Your task to perform on an android device: Set an alarm for 7pm Image 0: 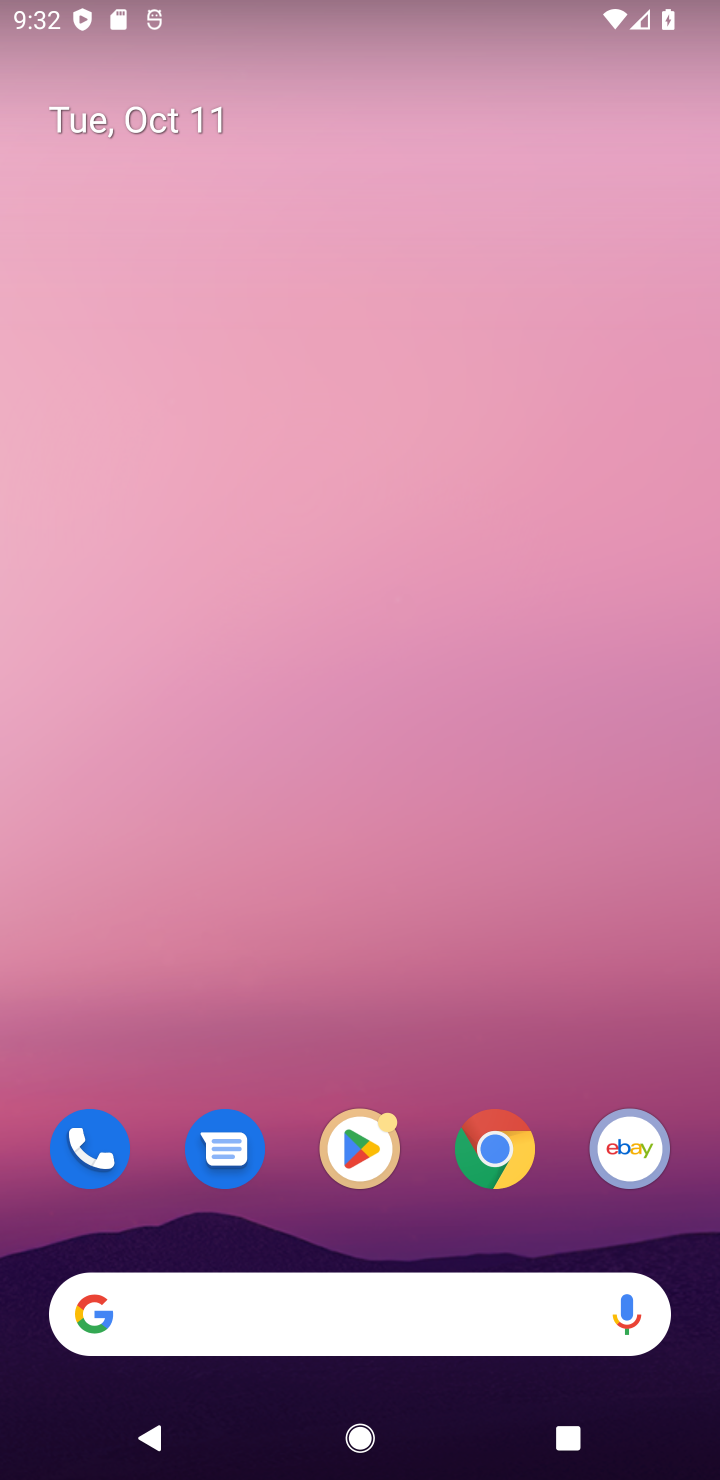
Step 0: drag from (316, 1087) to (301, 198)
Your task to perform on an android device: Set an alarm for 7pm Image 1: 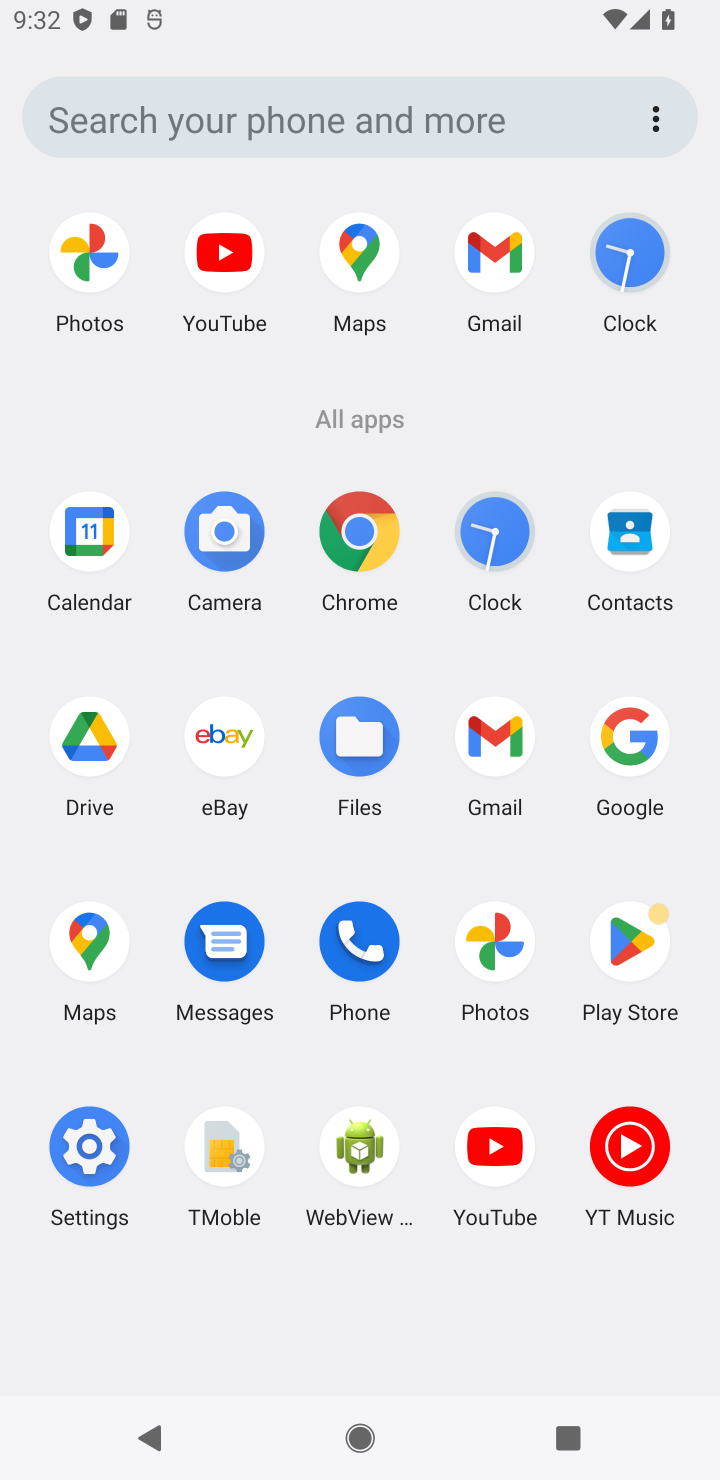
Step 1: click (491, 561)
Your task to perform on an android device: Set an alarm for 7pm Image 2: 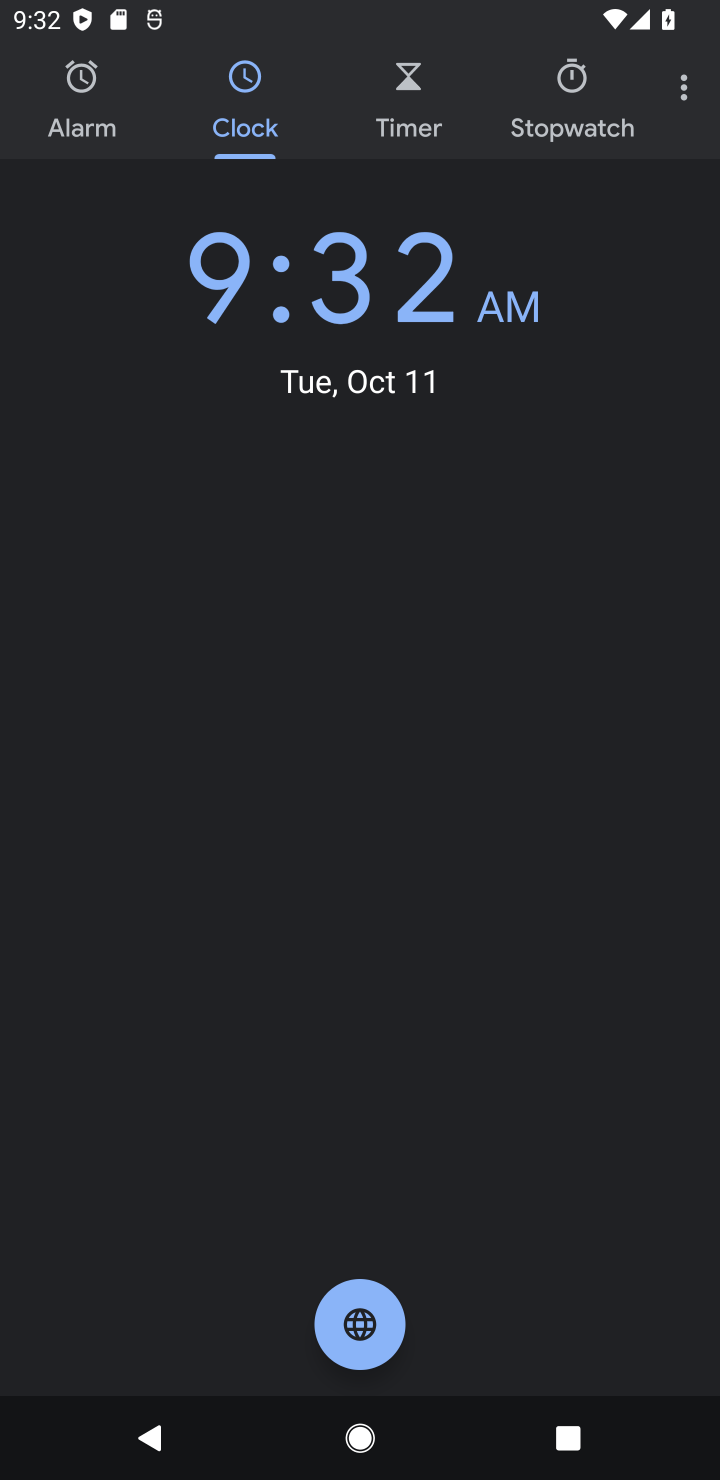
Step 2: click (89, 117)
Your task to perform on an android device: Set an alarm for 7pm Image 3: 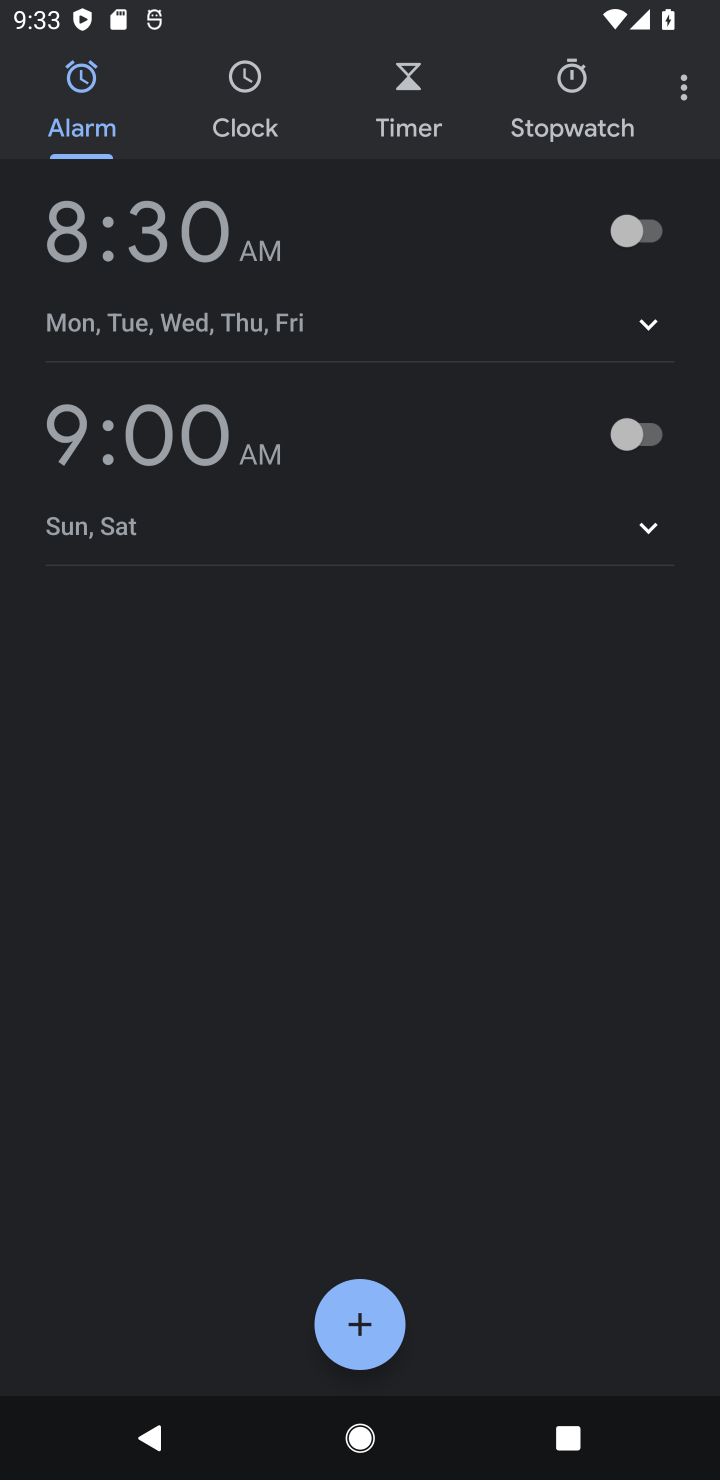
Step 3: click (361, 1355)
Your task to perform on an android device: Set an alarm for 7pm Image 4: 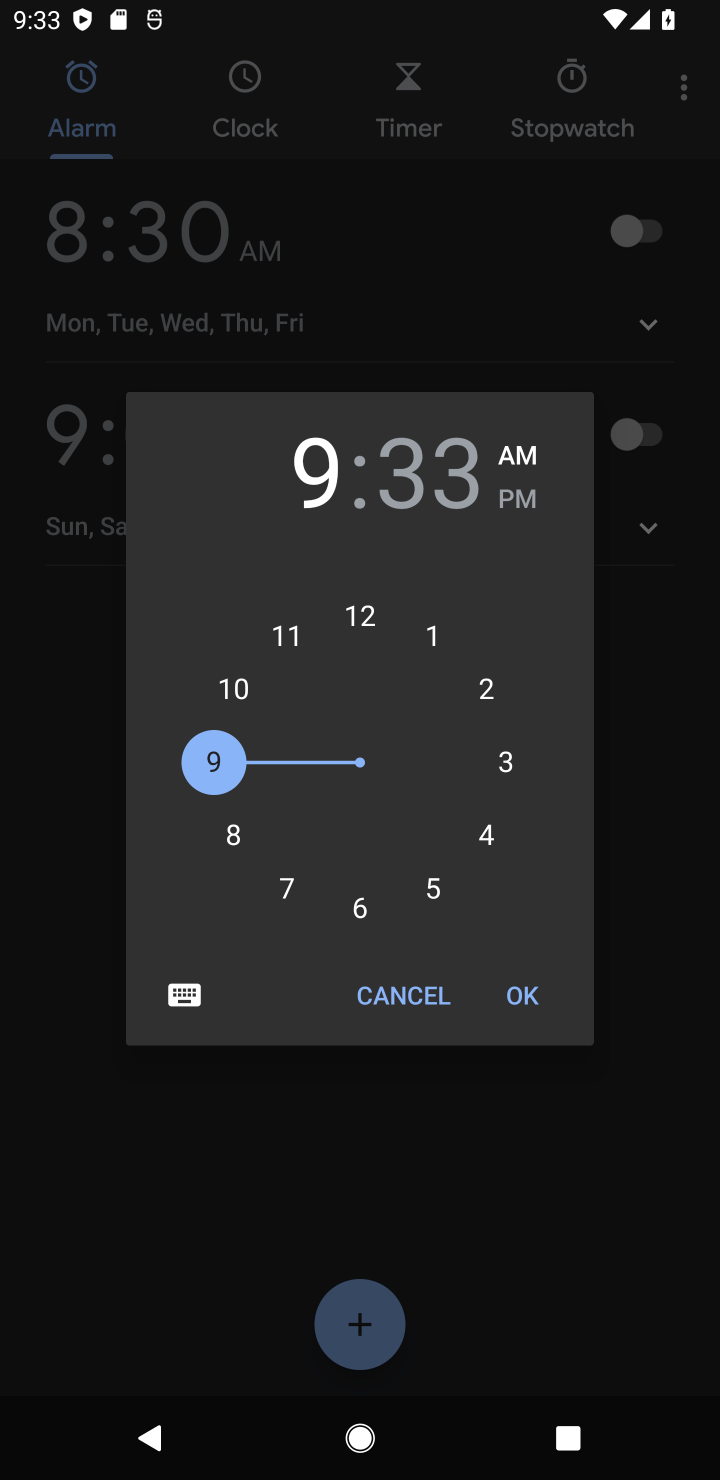
Step 4: click (289, 884)
Your task to perform on an android device: Set an alarm for 7pm Image 5: 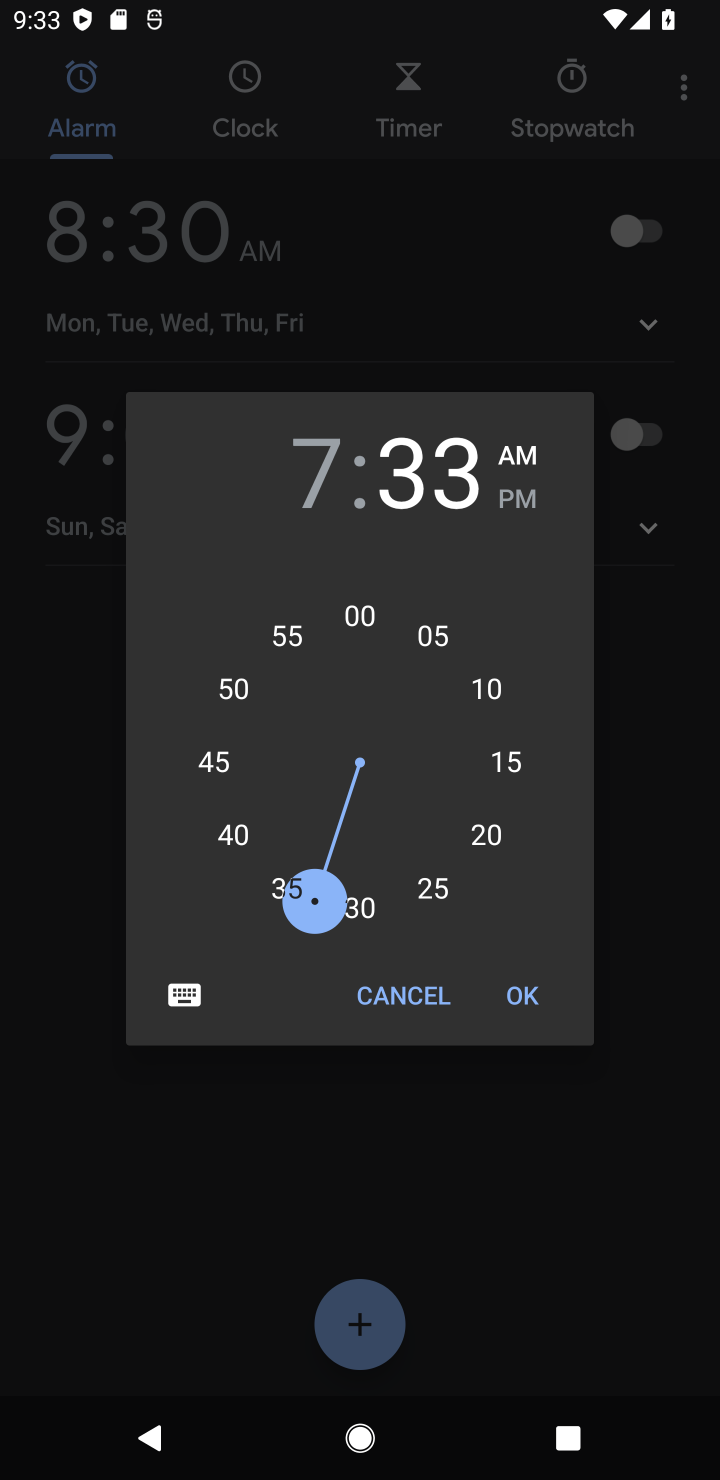
Step 5: click (355, 622)
Your task to perform on an android device: Set an alarm for 7pm Image 6: 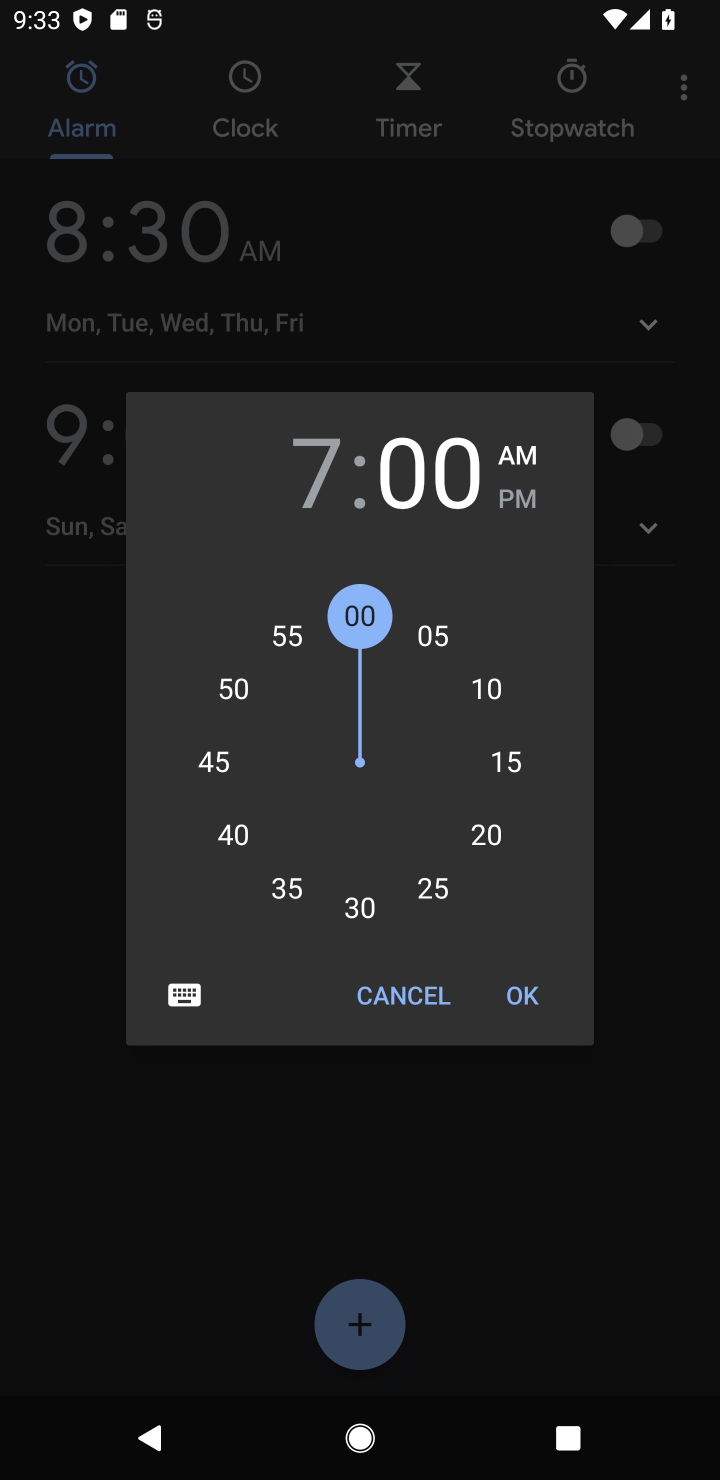
Step 6: click (525, 495)
Your task to perform on an android device: Set an alarm for 7pm Image 7: 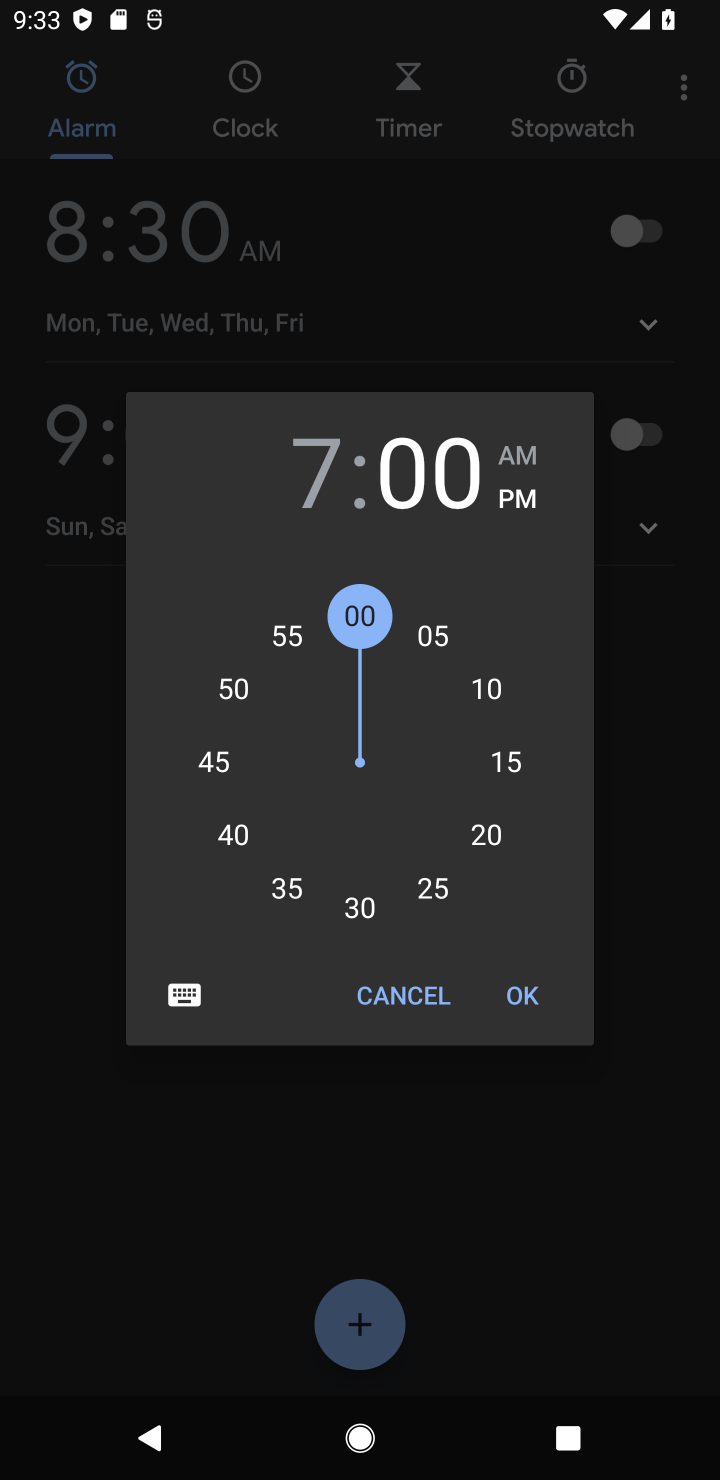
Step 7: click (532, 994)
Your task to perform on an android device: Set an alarm for 7pm Image 8: 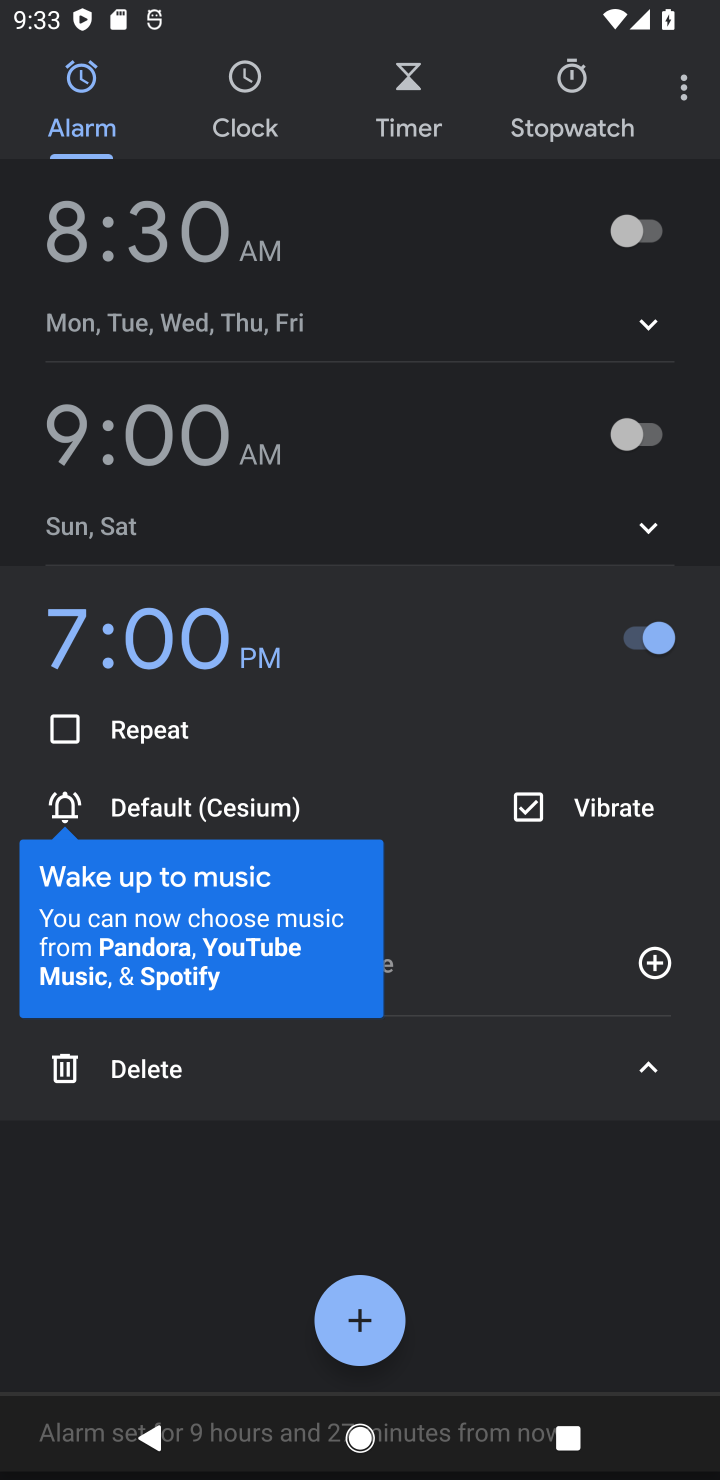
Step 8: task complete